Your task to perform on an android device: check out phone information Image 0: 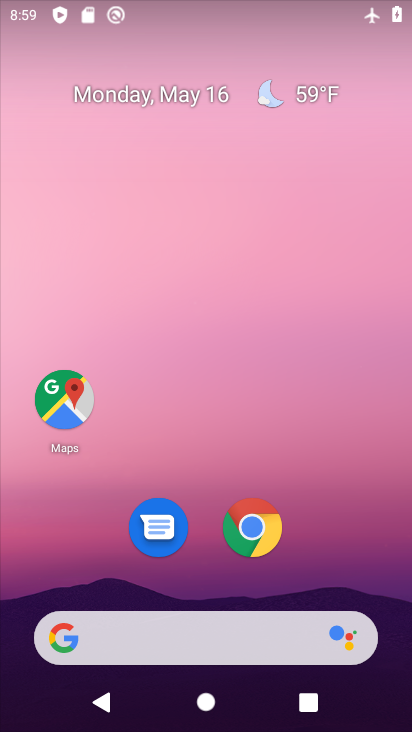
Step 0: drag from (402, 681) to (403, 182)
Your task to perform on an android device: check out phone information Image 1: 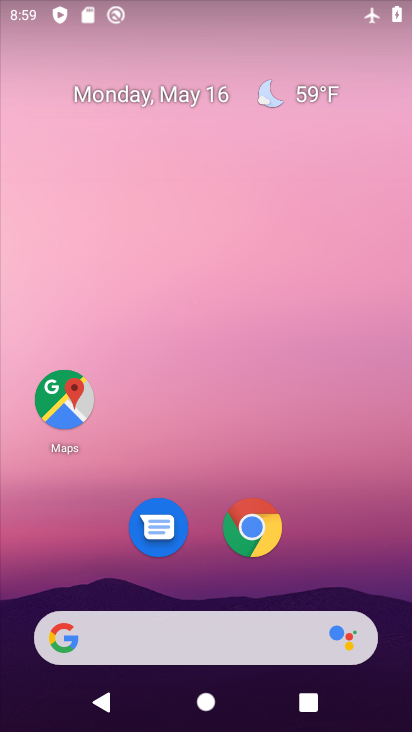
Step 1: drag from (393, 519) to (370, 261)
Your task to perform on an android device: check out phone information Image 2: 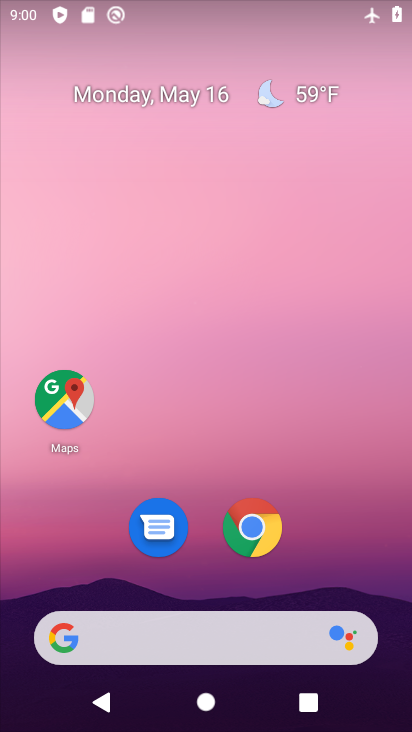
Step 2: drag from (390, 615) to (349, 367)
Your task to perform on an android device: check out phone information Image 3: 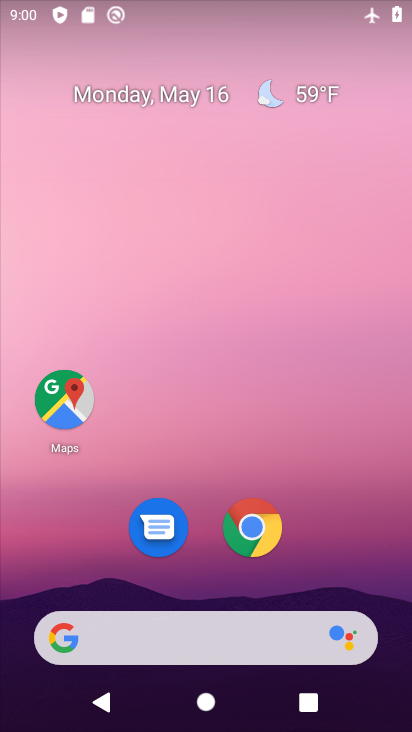
Step 3: drag from (377, 503) to (368, 275)
Your task to perform on an android device: check out phone information Image 4: 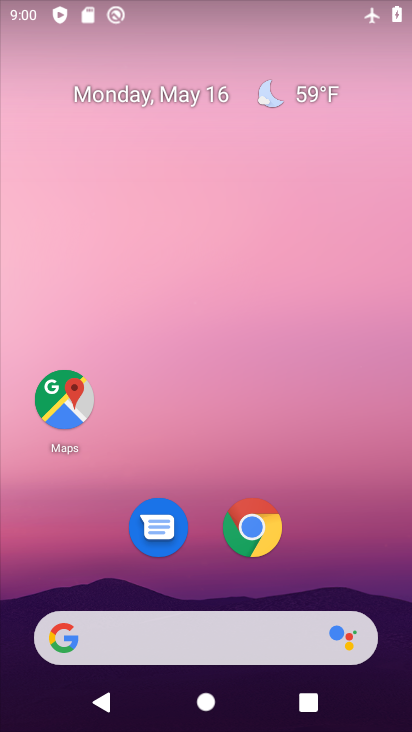
Step 4: click (350, 218)
Your task to perform on an android device: check out phone information Image 5: 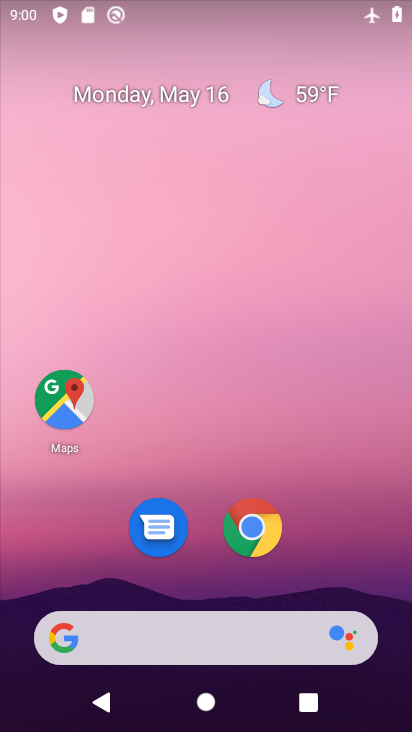
Step 5: drag from (390, 678) to (379, 262)
Your task to perform on an android device: check out phone information Image 6: 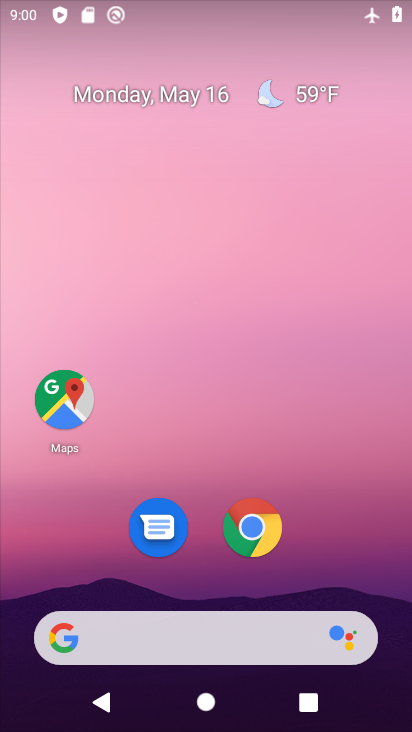
Step 6: drag from (385, 608) to (387, 278)
Your task to perform on an android device: check out phone information Image 7: 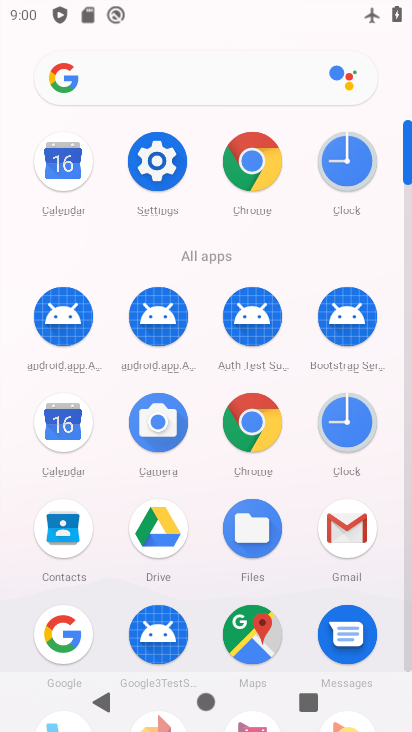
Step 7: click (172, 145)
Your task to perform on an android device: check out phone information Image 8: 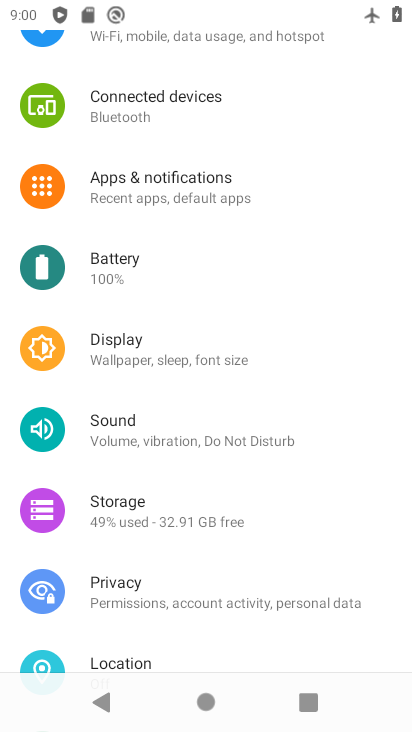
Step 8: drag from (358, 641) to (327, 324)
Your task to perform on an android device: check out phone information Image 9: 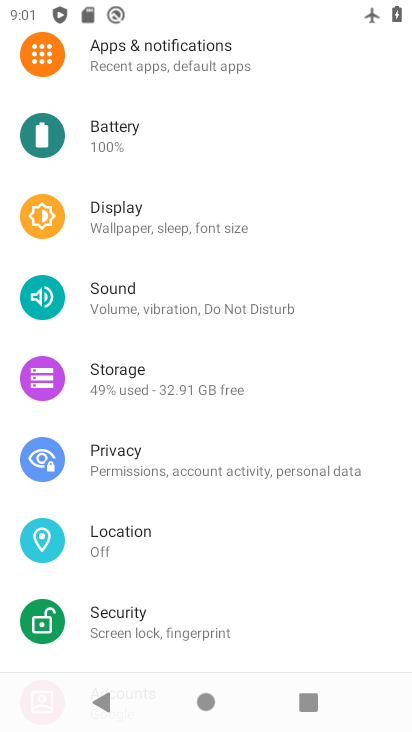
Step 9: drag from (359, 626) to (367, 334)
Your task to perform on an android device: check out phone information Image 10: 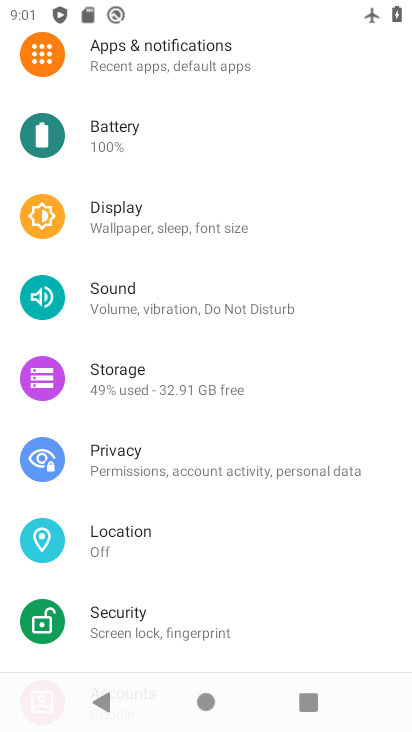
Step 10: drag from (362, 627) to (361, 346)
Your task to perform on an android device: check out phone information Image 11: 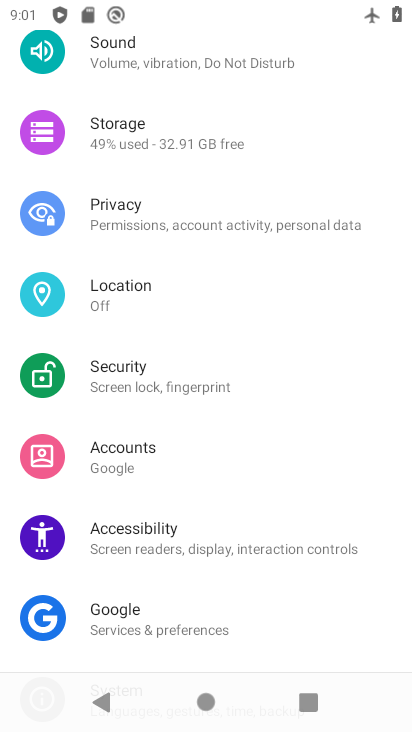
Step 11: drag from (376, 640) to (365, 397)
Your task to perform on an android device: check out phone information Image 12: 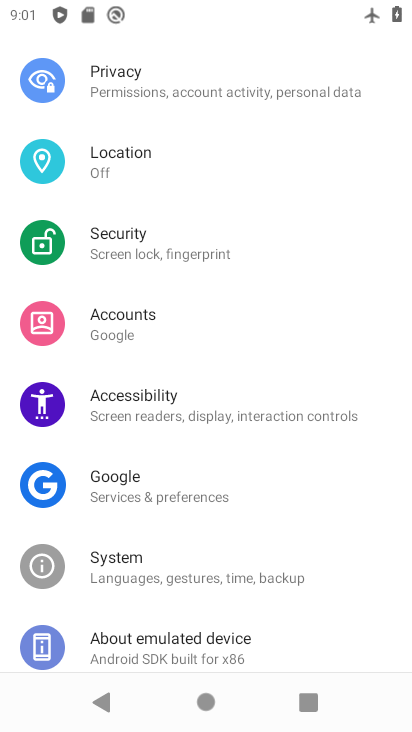
Step 12: drag from (342, 641) to (325, 412)
Your task to perform on an android device: check out phone information Image 13: 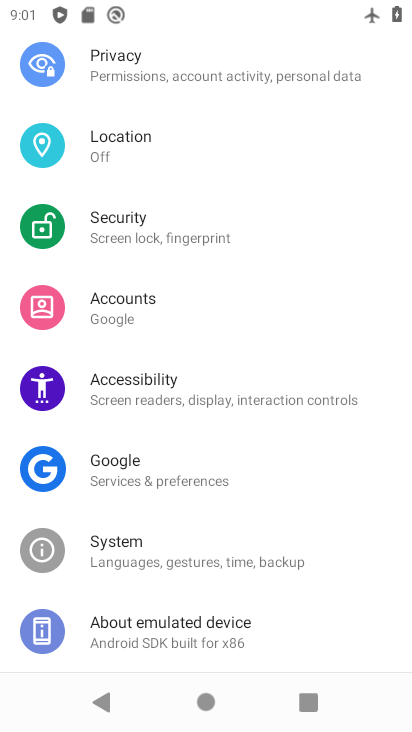
Step 13: click (132, 625)
Your task to perform on an android device: check out phone information Image 14: 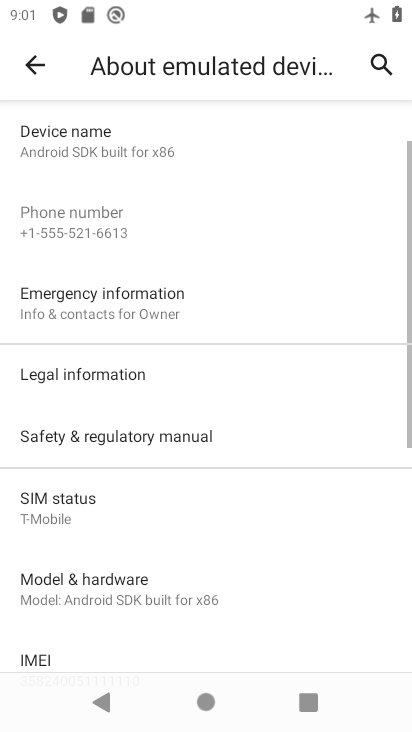
Step 14: drag from (305, 610) to (303, 377)
Your task to perform on an android device: check out phone information Image 15: 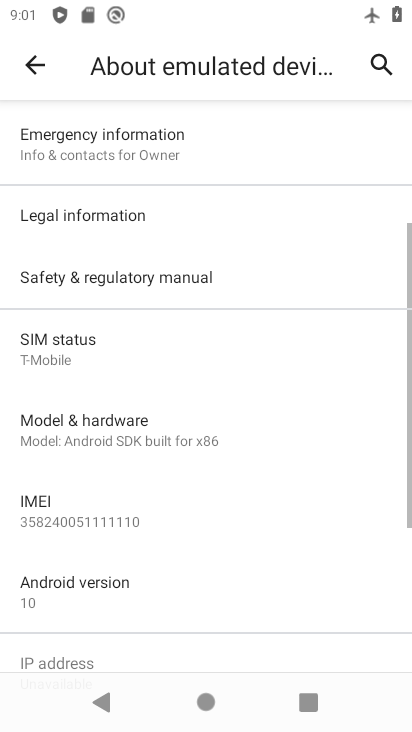
Step 15: drag from (303, 139) to (321, 428)
Your task to perform on an android device: check out phone information Image 16: 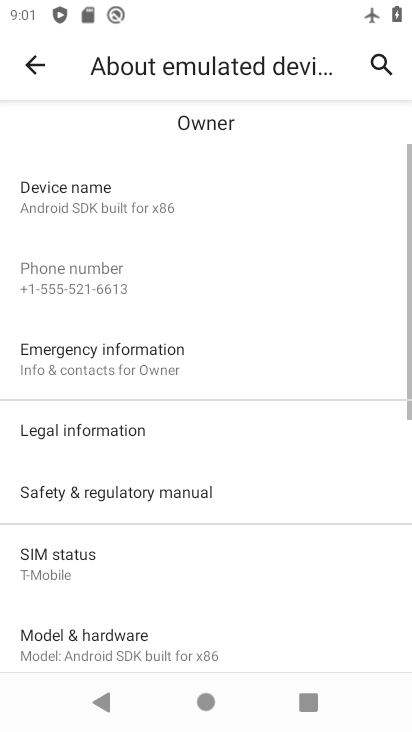
Step 16: drag from (285, 240) to (314, 553)
Your task to perform on an android device: check out phone information Image 17: 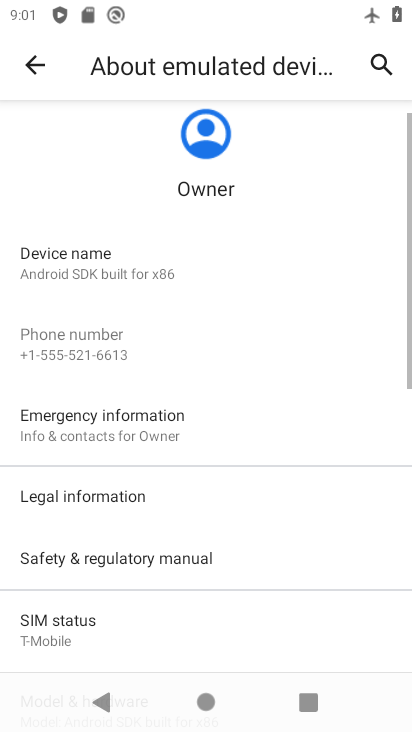
Step 17: drag from (290, 607) to (267, 347)
Your task to perform on an android device: check out phone information Image 18: 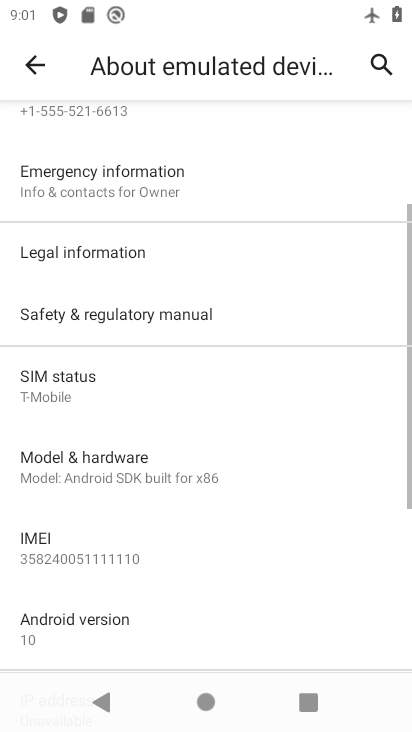
Step 18: click (278, 380)
Your task to perform on an android device: check out phone information Image 19: 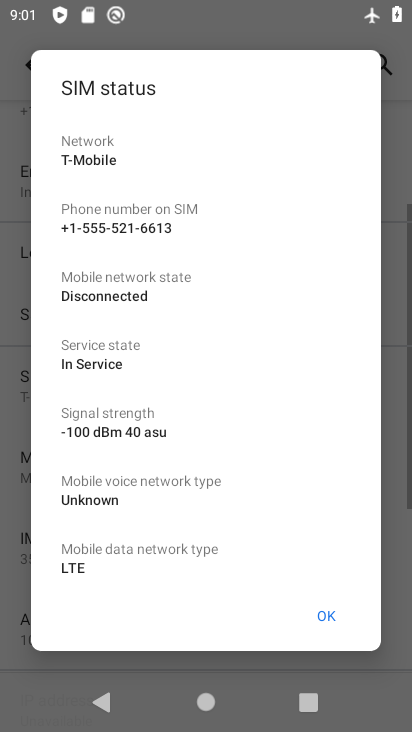
Step 19: task complete